Your task to perform on an android device: turn on airplane mode Image 0: 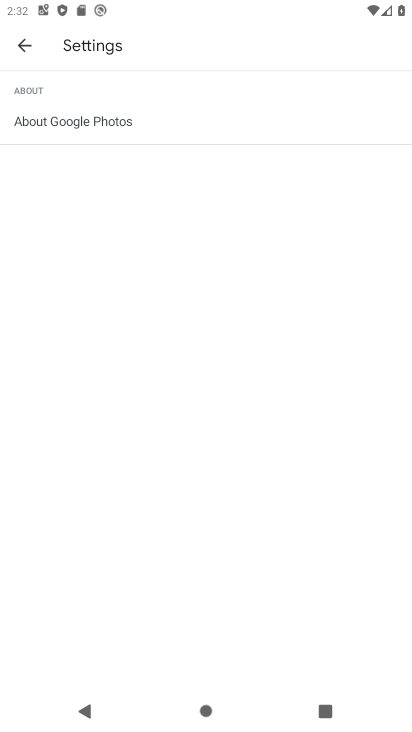
Step 0: press home button
Your task to perform on an android device: turn on airplane mode Image 1: 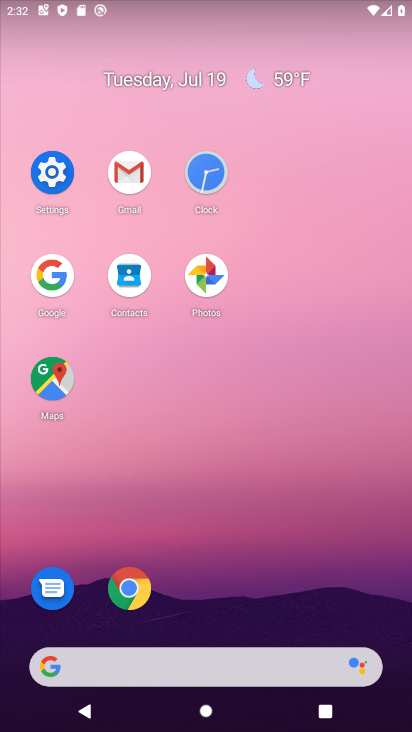
Step 1: click (66, 181)
Your task to perform on an android device: turn on airplane mode Image 2: 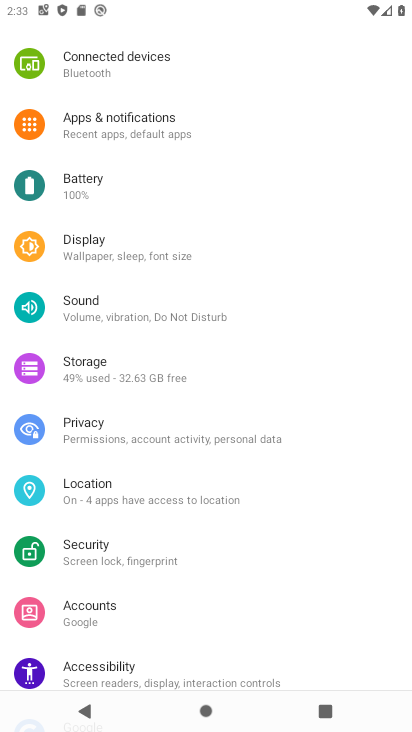
Step 2: drag from (233, 136) to (227, 387)
Your task to perform on an android device: turn on airplane mode Image 3: 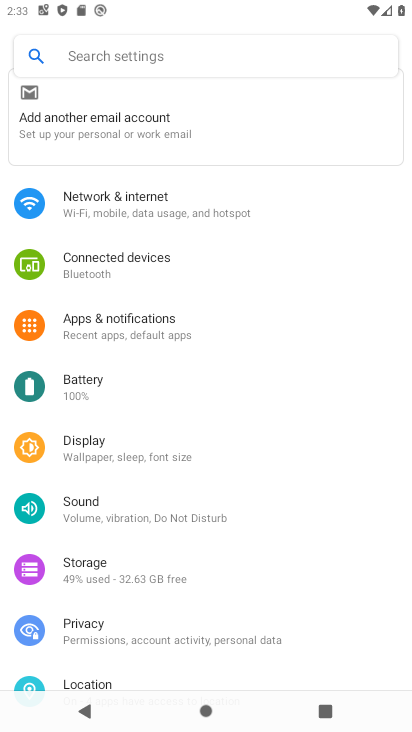
Step 3: click (172, 215)
Your task to perform on an android device: turn on airplane mode Image 4: 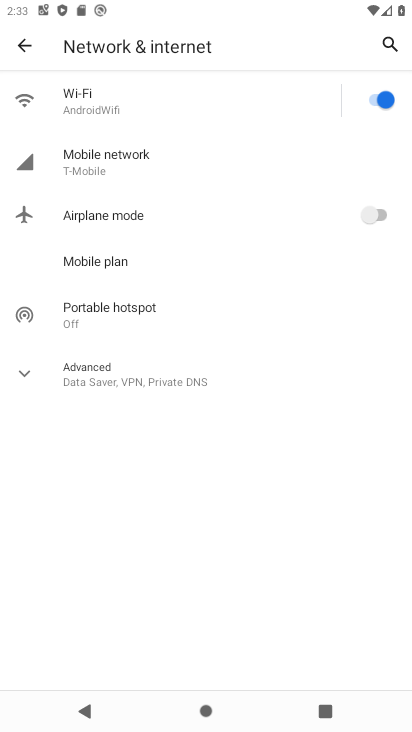
Step 4: click (172, 215)
Your task to perform on an android device: turn on airplane mode Image 5: 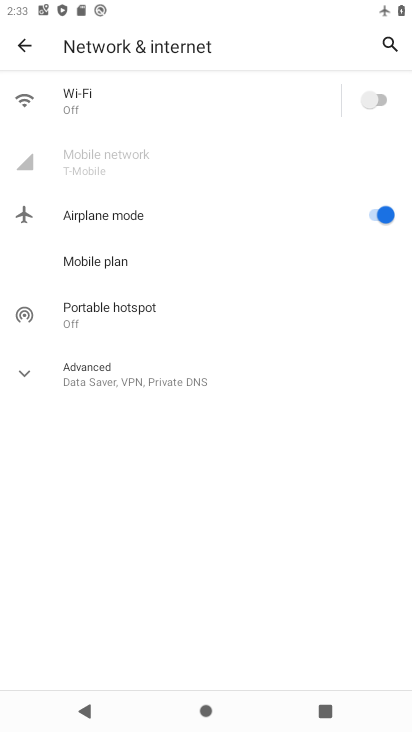
Step 5: task complete